Your task to perform on an android device: Open the calendar app, open the side menu, and click the "Day" option Image 0: 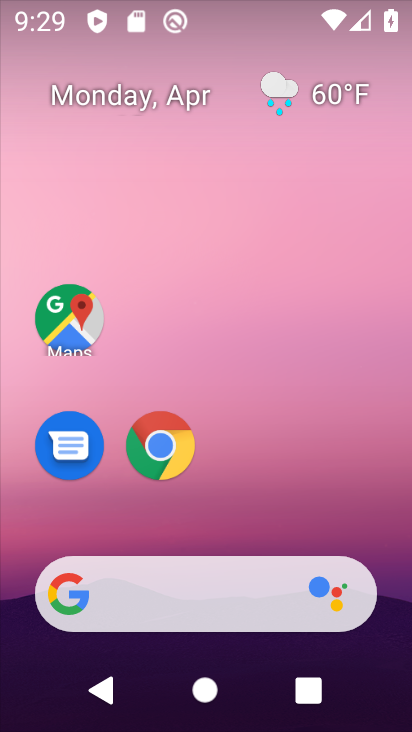
Step 0: drag from (308, 507) to (307, 53)
Your task to perform on an android device: Open the calendar app, open the side menu, and click the "Day" option Image 1: 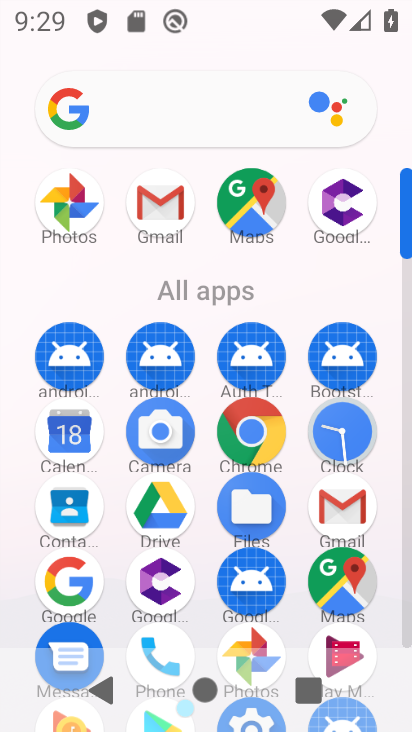
Step 1: click (58, 425)
Your task to perform on an android device: Open the calendar app, open the side menu, and click the "Day" option Image 2: 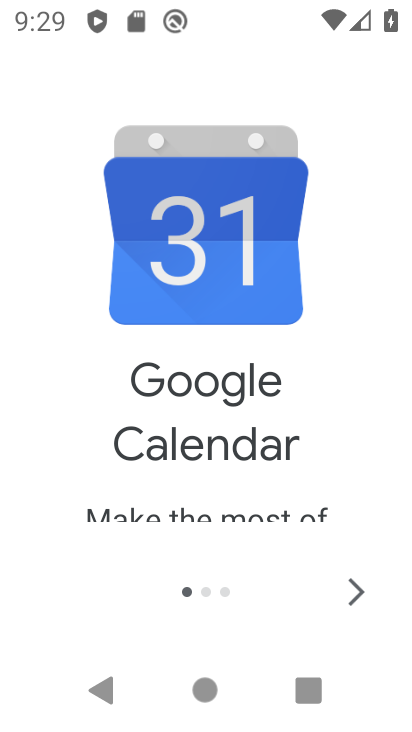
Step 2: click (350, 586)
Your task to perform on an android device: Open the calendar app, open the side menu, and click the "Day" option Image 3: 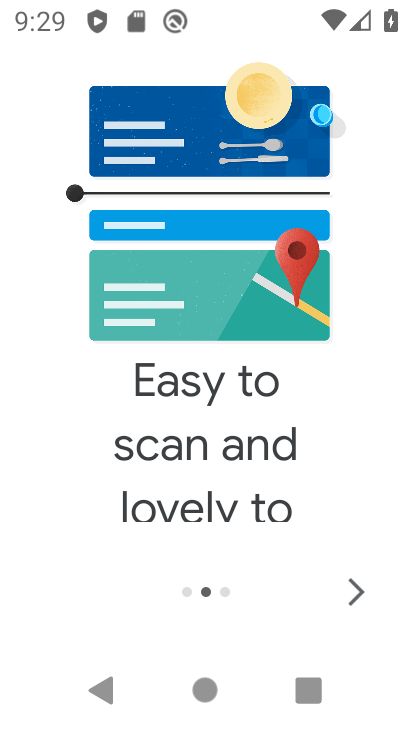
Step 3: click (350, 586)
Your task to perform on an android device: Open the calendar app, open the side menu, and click the "Day" option Image 4: 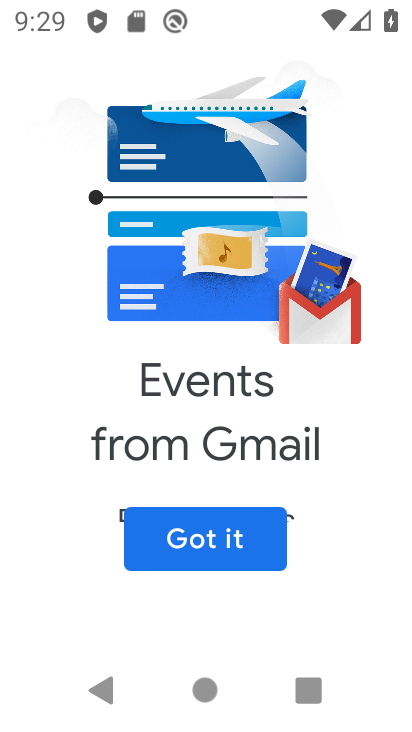
Step 4: click (249, 534)
Your task to perform on an android device: Open the calendar app, open the side menu, and click the "Day" option Image 5: 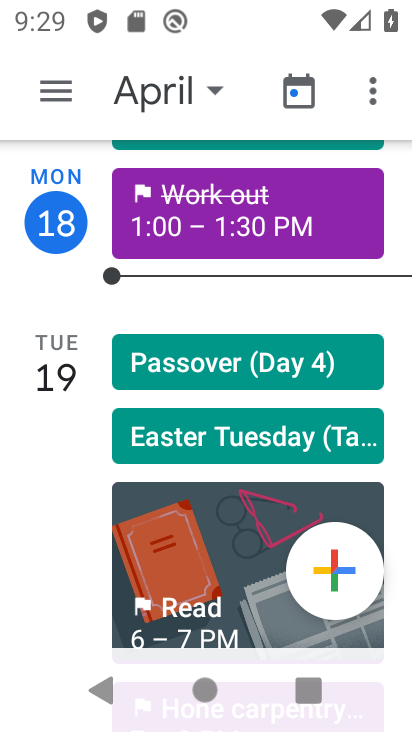
Step 5: click (61, 84)
Your task to perform on an android device: Open the calendar app, open the side menu, and click the "Day" option Image 6: 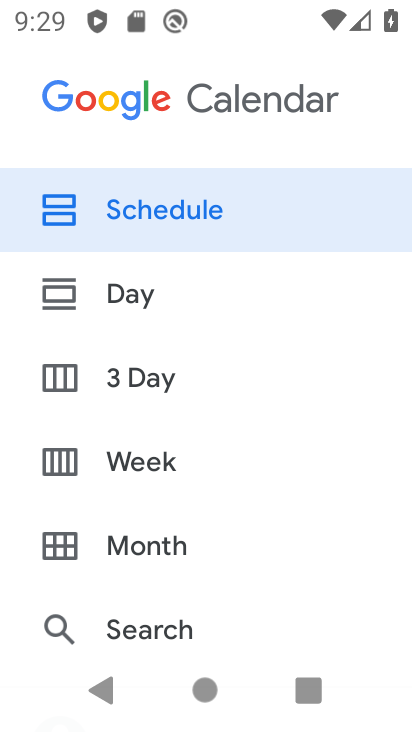
Step 6: click (145, 297)
Your task to perform on an android device: Open the calendar app, open the side menu, and click the "Day" option Image 7: 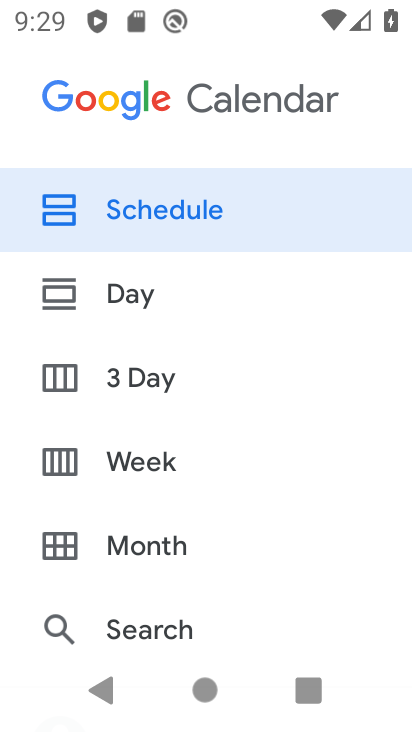
Step 7: click (120, 295)
Your task to perform on an android device: Open the calendar app, open the side menu, and click the "Day" option Image 8: 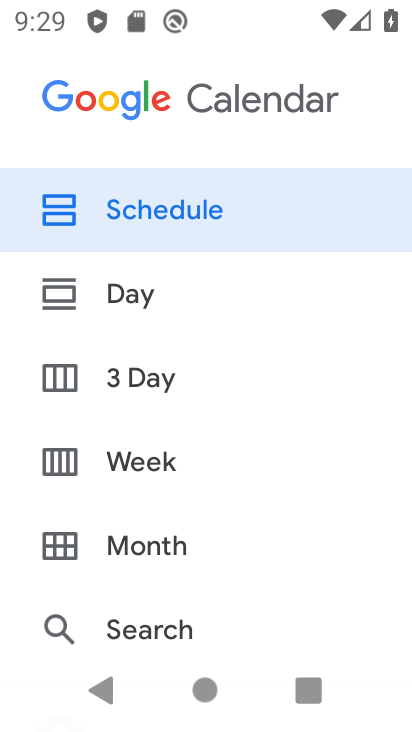
Step 8: click (120, 295)
Your task to perform on an android device: Open the calendar app, open the side menu, and click the "Day" option Image 9: 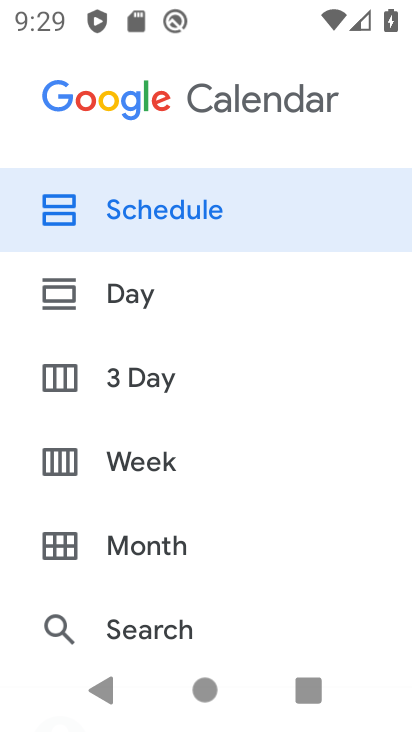
Step 9: click (49, 279)
Your task to perform on an android device: Open the calendar app, open the side menu, and click the "Day" option Image 10: 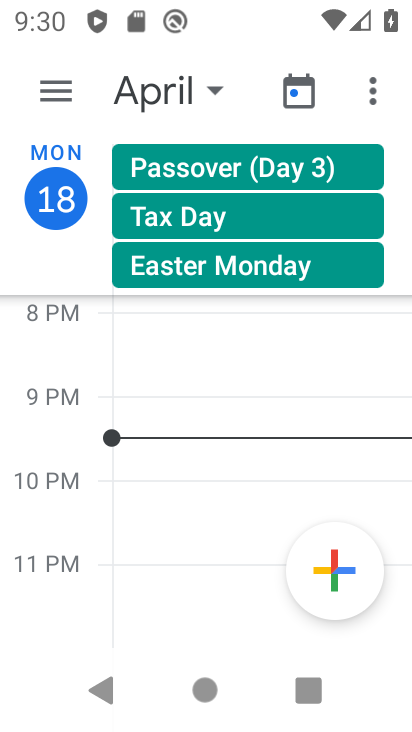
Step 10: task complete